Your task to perform on an android device: Go to sound settings Image 0: 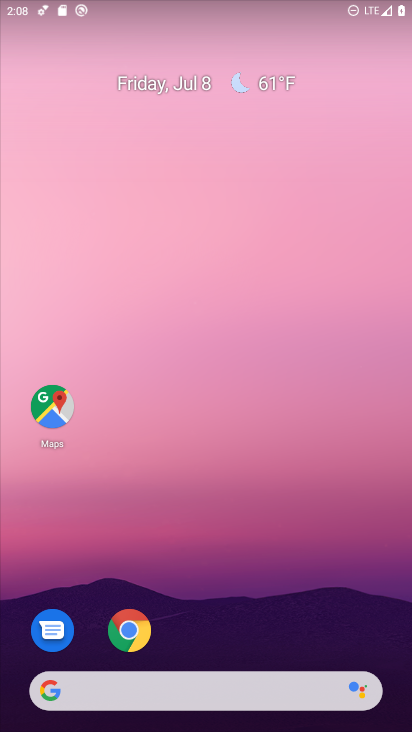
Step 0: drag from (376, 636) to (362, 8)
Your task to perform on an android device: Go to sound settings Image 1: 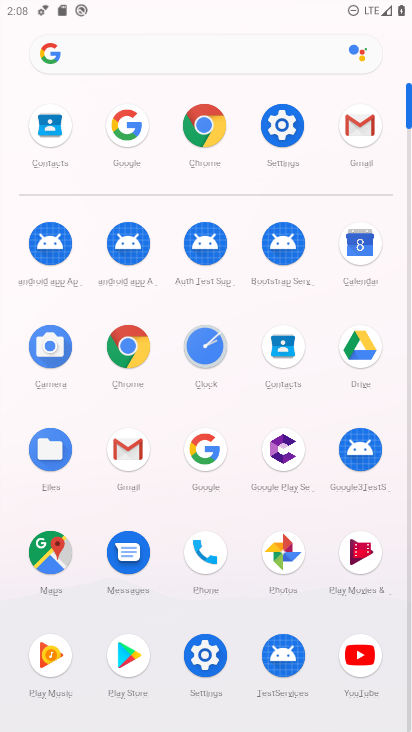
Step 1: click (207, 677)
Your task to perform on an android device: Go to sound settings Image 2: 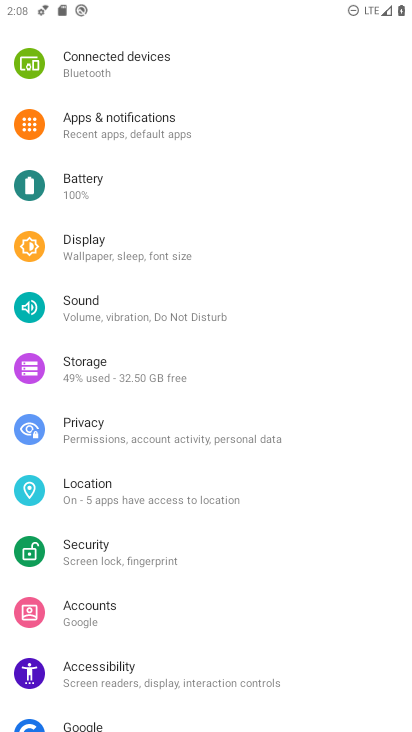
Step 2: click (108, 312)
Your task to perform on an android device: Go to sound settings Image 3: 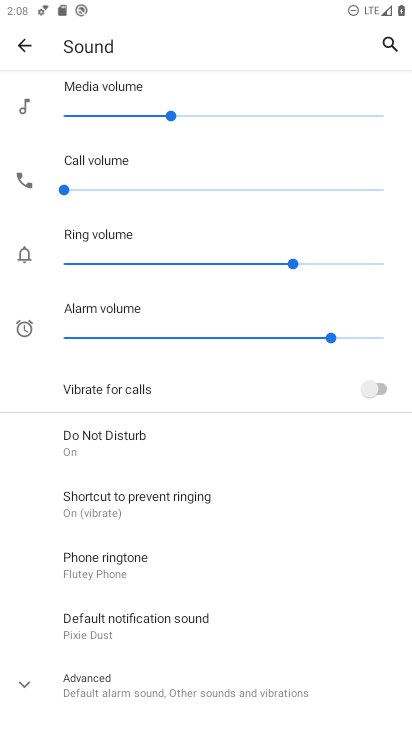
Step 3: task complete